Your task to perform on an android device: Go to ESPN.com Image 0: 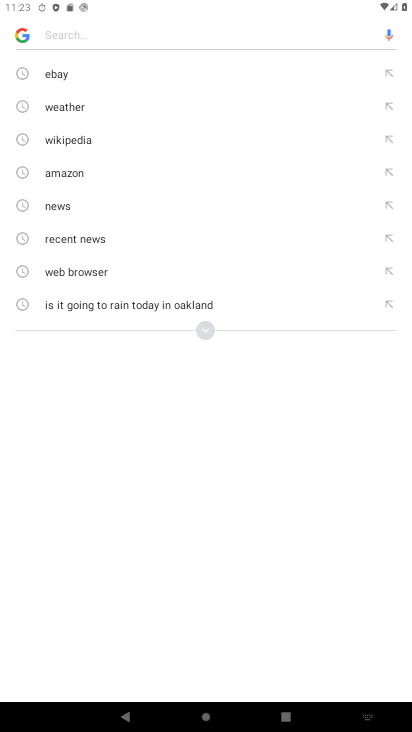
Step 0: press home button
Your task to perform on an android device: Go to ESPN.com Image 1: 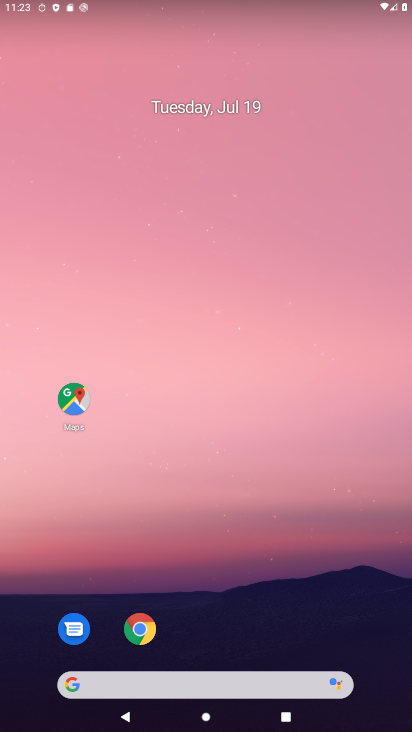
Step 1: drag from (269, 623) to (294, 65)
Your task to perform on an android device: Go to ESPN.com Image 2: 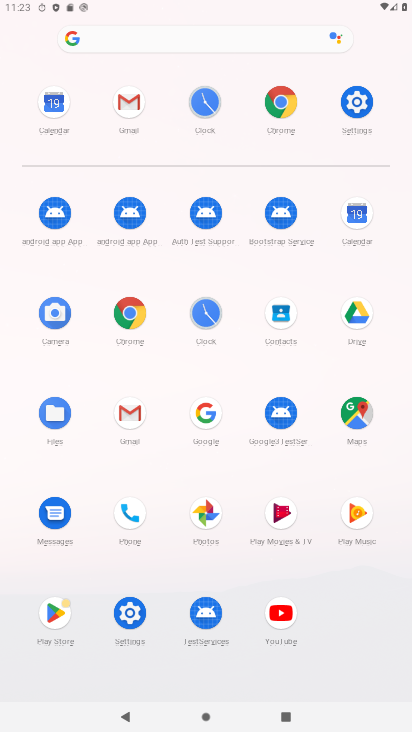
Step 2: click (284, 97)
Your task to perform on an android device: Go to ESPN.com Image 3: 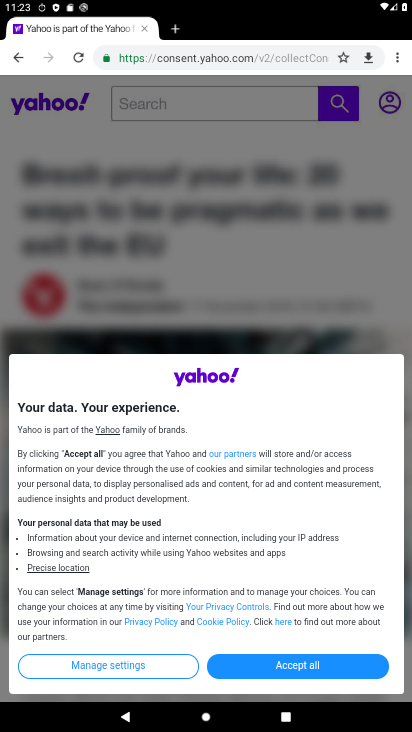
Step 3: click (237, 51)
Your task to perform on an android device: Go to ESPN.com Image 4: 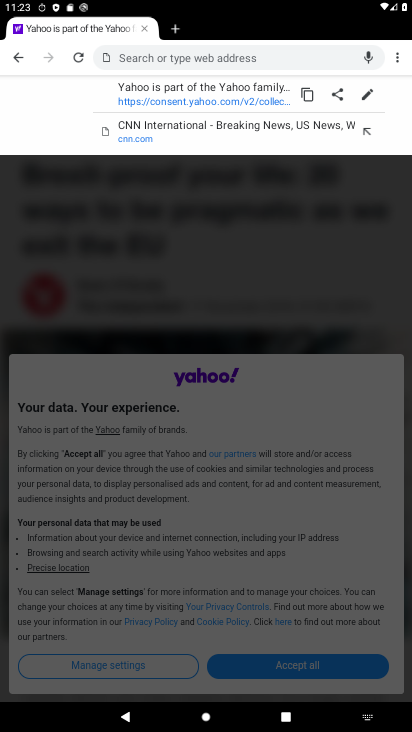
Step 4: type "espn.com"
Your task to perform on an android device: Go to ESPN.com Image 5: 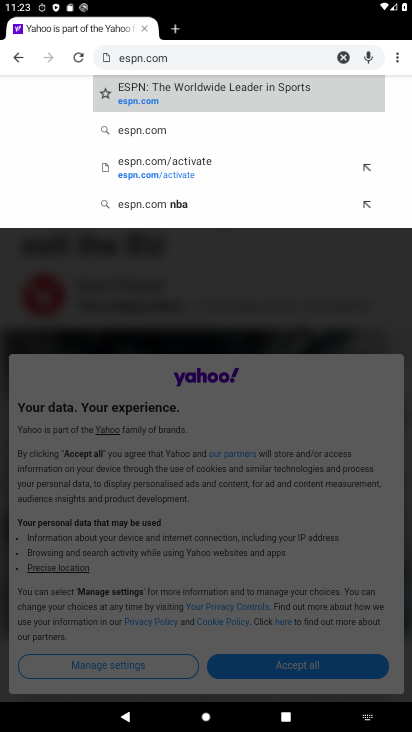
Step 5: click (153, 101)
Your task to perform on an android device: Go to ESPN.com Image 6: 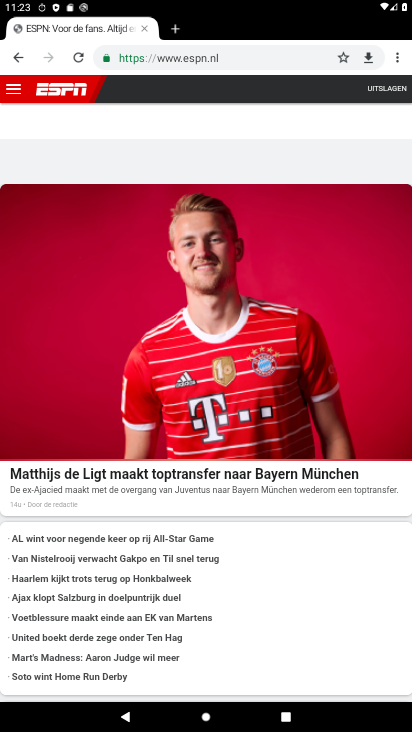
Step 6: task complete